Your task to perform on an android device: Open the calendar and show me this week's events? Image 0: 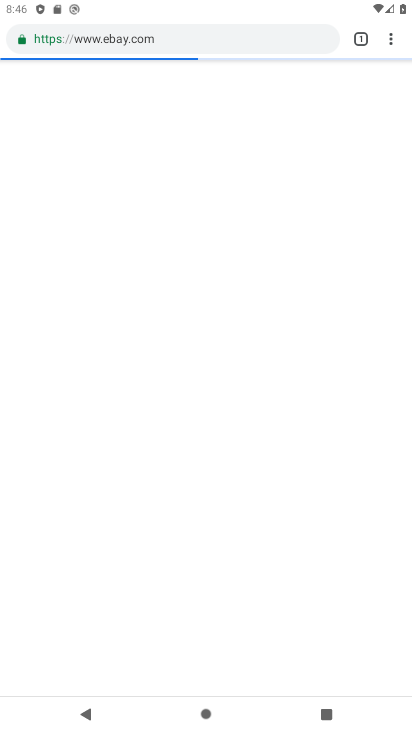
Step 0: press home button
Your task to perform on an android device: Open the calendar and show me this week's events? Image 1: 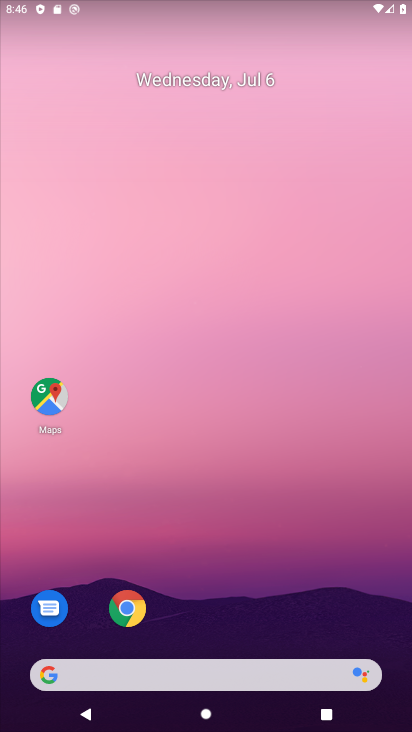
Step 1: drag from (249, 625) to (224, 61)
Your task to perform on an android device: Open the calendar and show me this week's events? Image 2: 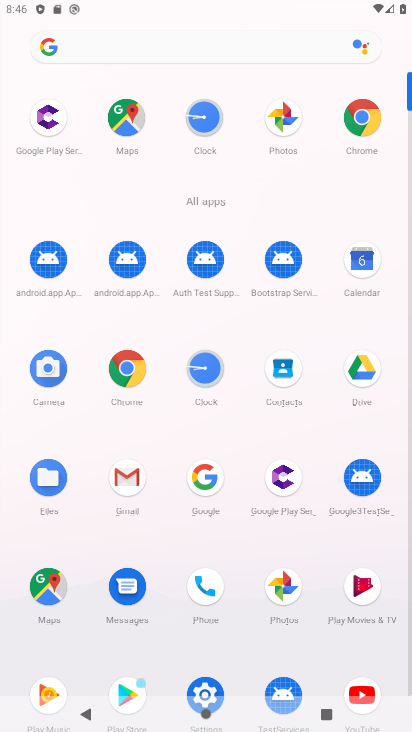
Step 2: click (374, 265)
Your task to perform on an android device: Open the calendar and show me this week's events? Image 3: 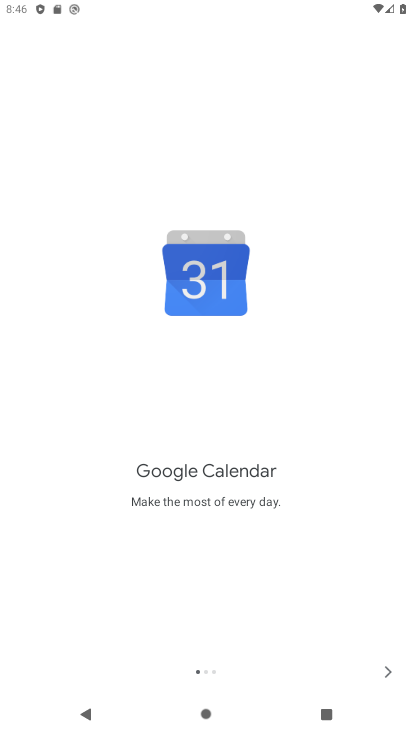
Step 3: click (381, 666)
Your task to perform on an android device: Open the calendar and show me this week's events? Image 4: 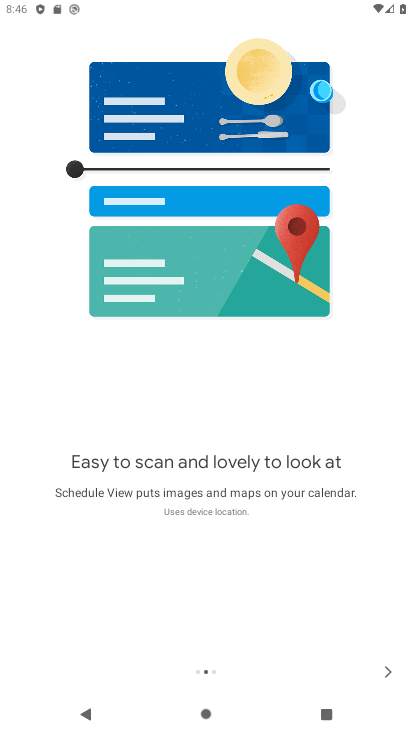
Step 4: click (386, 666)
Your task to perform on an android device: Open the calendar and show me this week's events? Image 5: 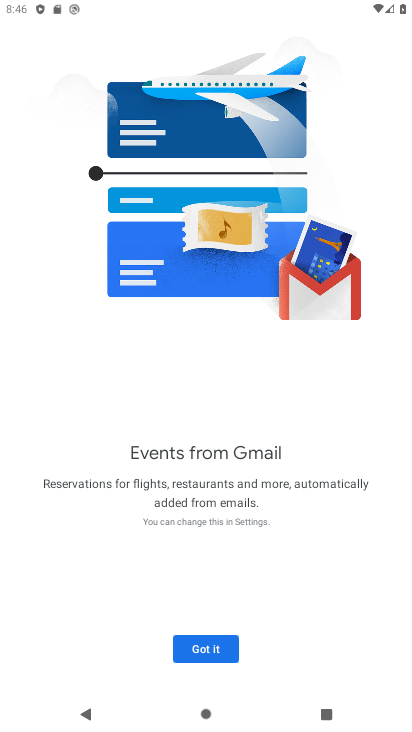
Step 5: click (232, 654)
Your task to perform on an android device: Open the calendar and show me this week's events? Image 6: 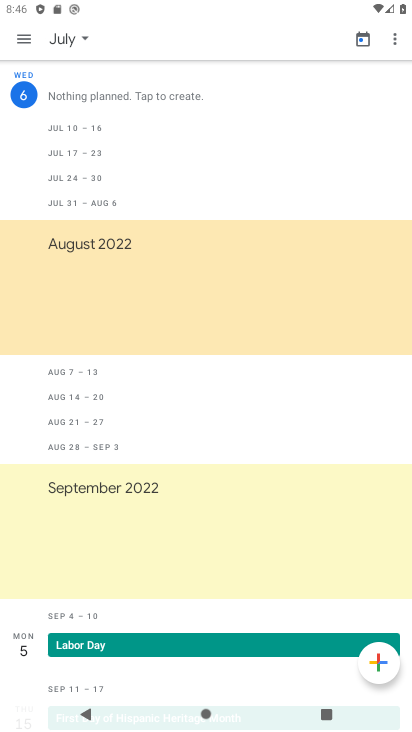
Step 6: click (17, 44)
Your task to perform on an android device: Open the calendar and show me this week's events? Image 7: 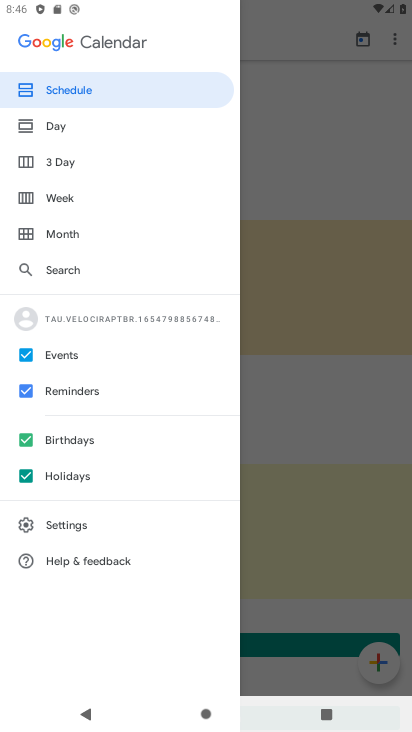
Step 7: click (29, 473)
Your task to perform on an android device: Open the calendar and show me this week's events? Image 8: 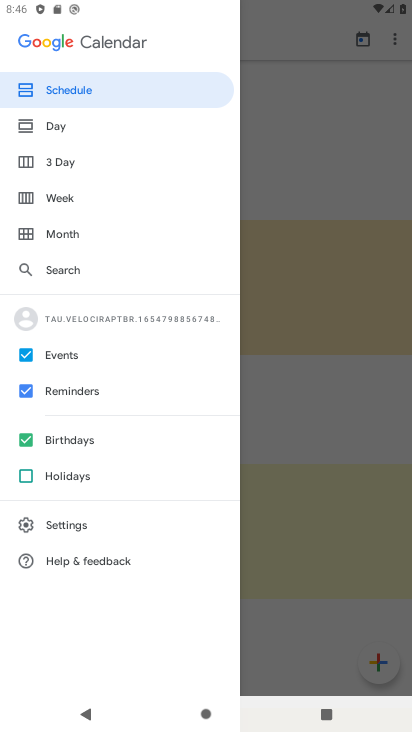
Step 8: click (27, 438)
Your task to perform on an android device: Open the calendar and show me this week's events? Image 9: 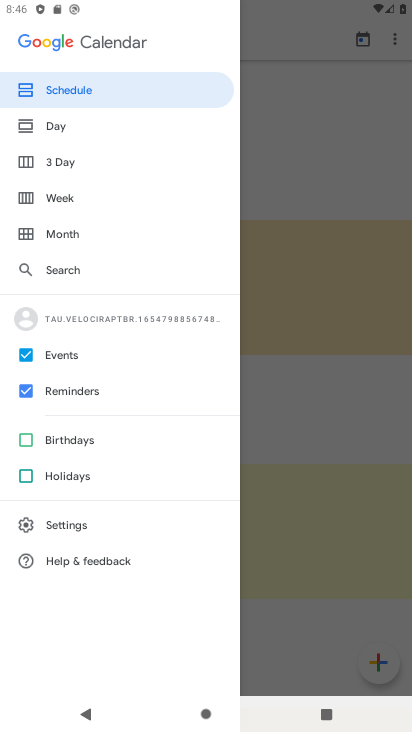
Step 9: click (23, 390)
Your task to perform on an android device: Open the calendar and show me this week's events? Image 10: 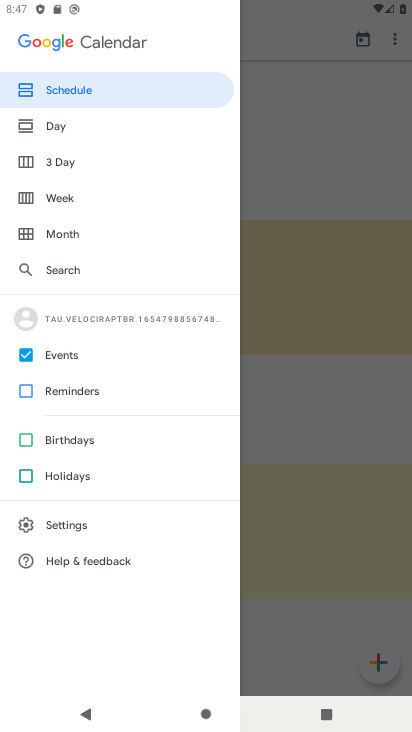
Step 10: click (66, 201)
Your task to perform on an android device: Open the calendar and show me this week's events? Image 11: 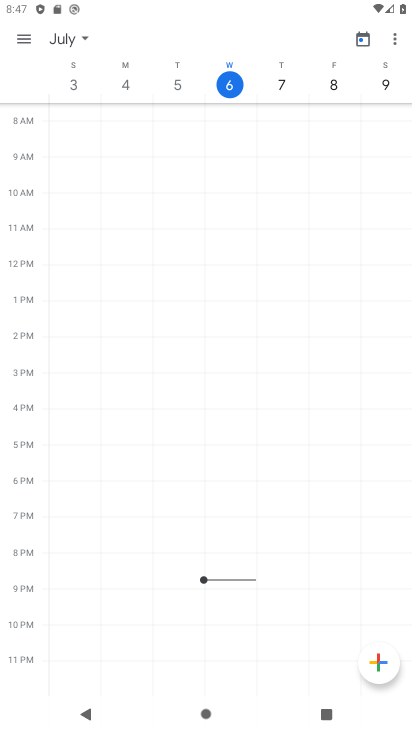
Step 11: task complete